Your task to perform on an android device: Search for a new mascara on Sephora Image 0: 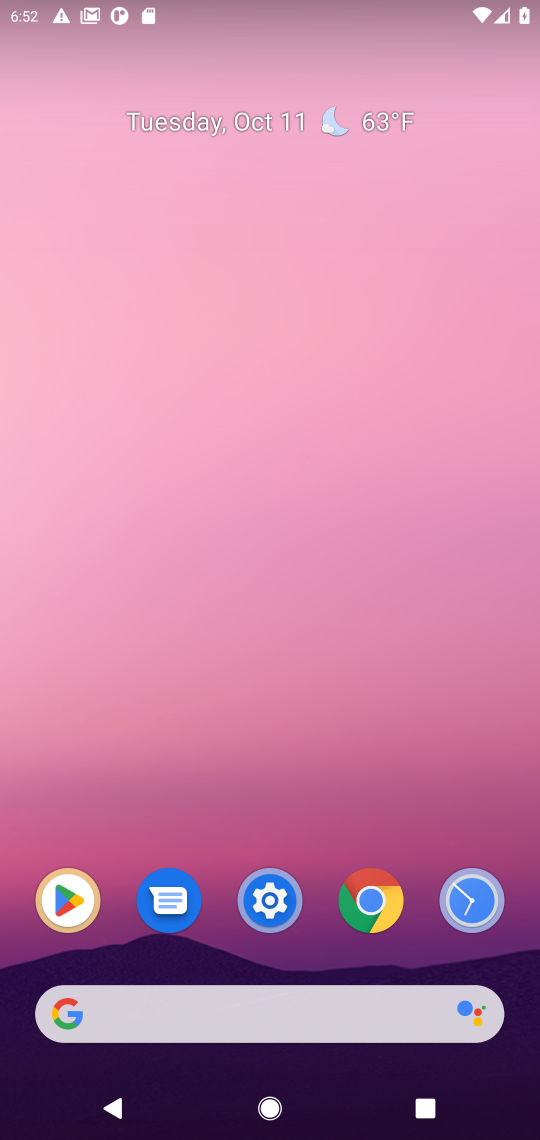
Step 0: click (370, 895)
Your task to perform on an android device: Search for a new mascara on Sephora Image 1: 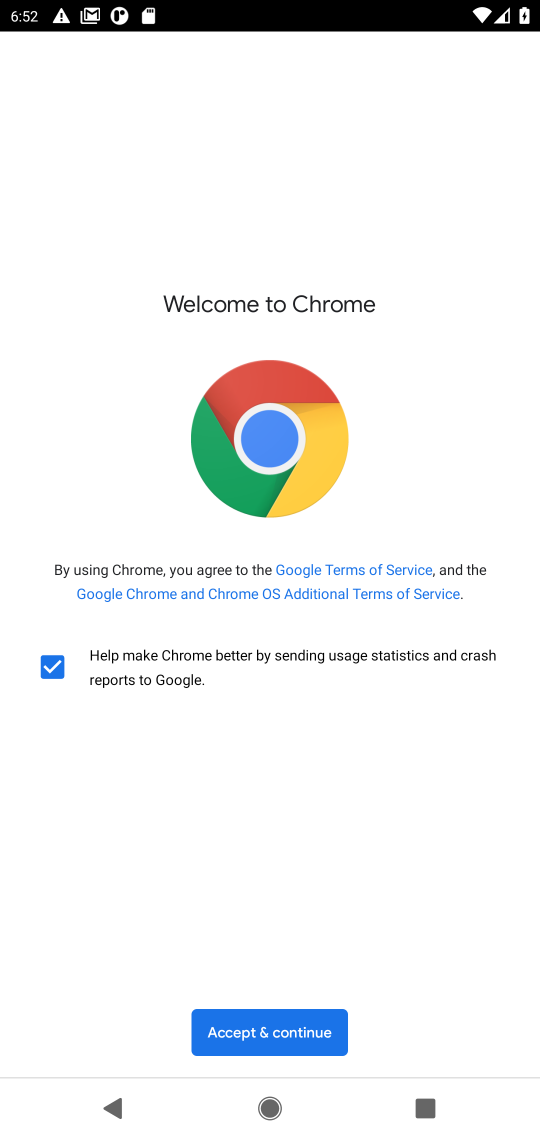
Step 1: click (274, 1032)
Your task to perform on an android device: Search for a new mascara on Sephora Image 2: 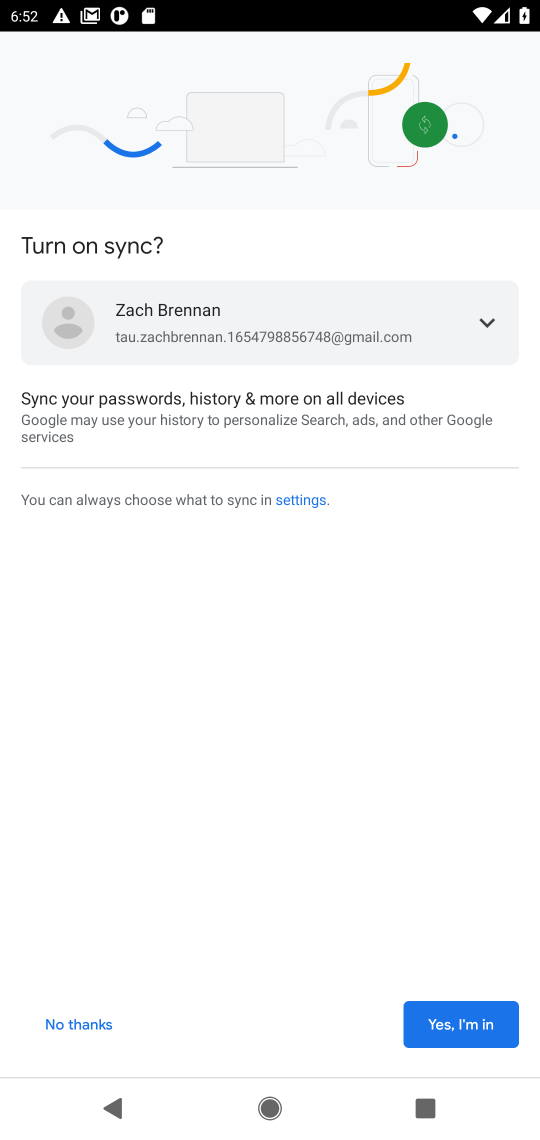
Step 2: click (465, 1018)
Your task to perform on an android device: Search for a new mascara on Sephora Image 3: 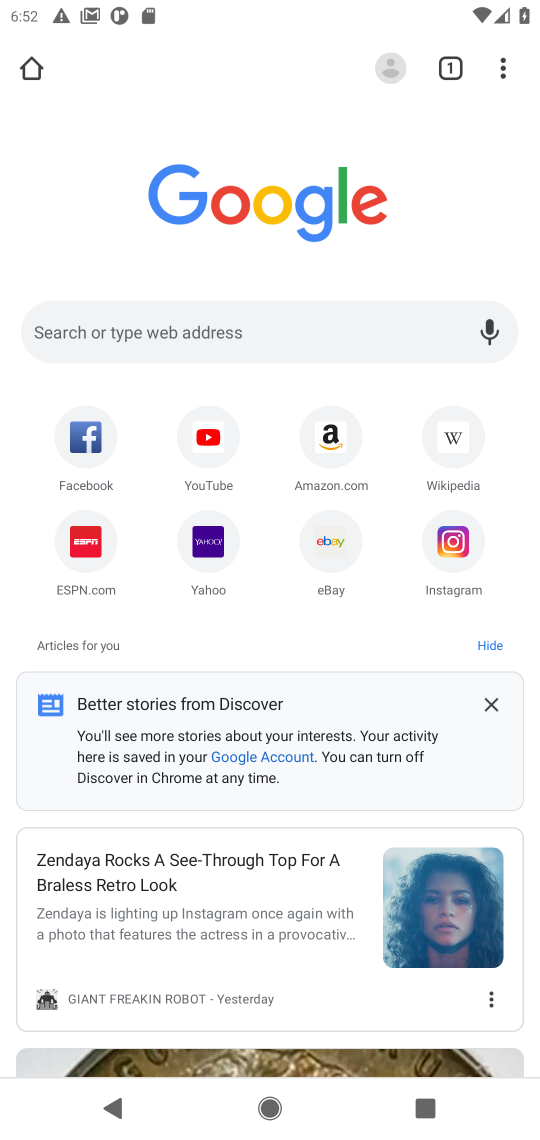
Step 3: click (262, 326)
Your task to perform on an android device: Search for a new mascara on Sephora Image 4: 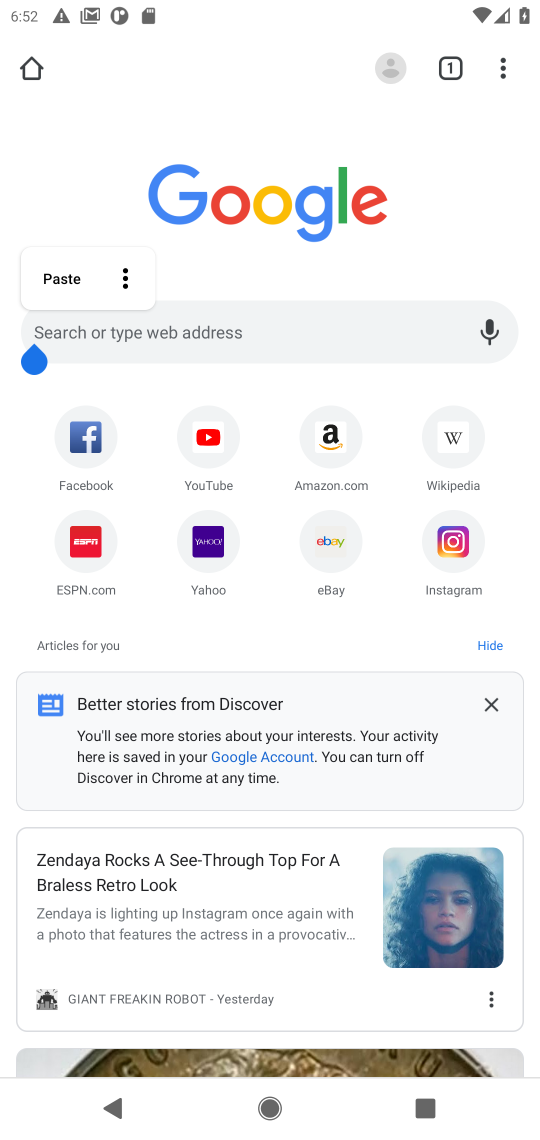
Step 4: click (222, 327)
Your task to perform on an android device: Search for a new mascara on Sephora Image 5: 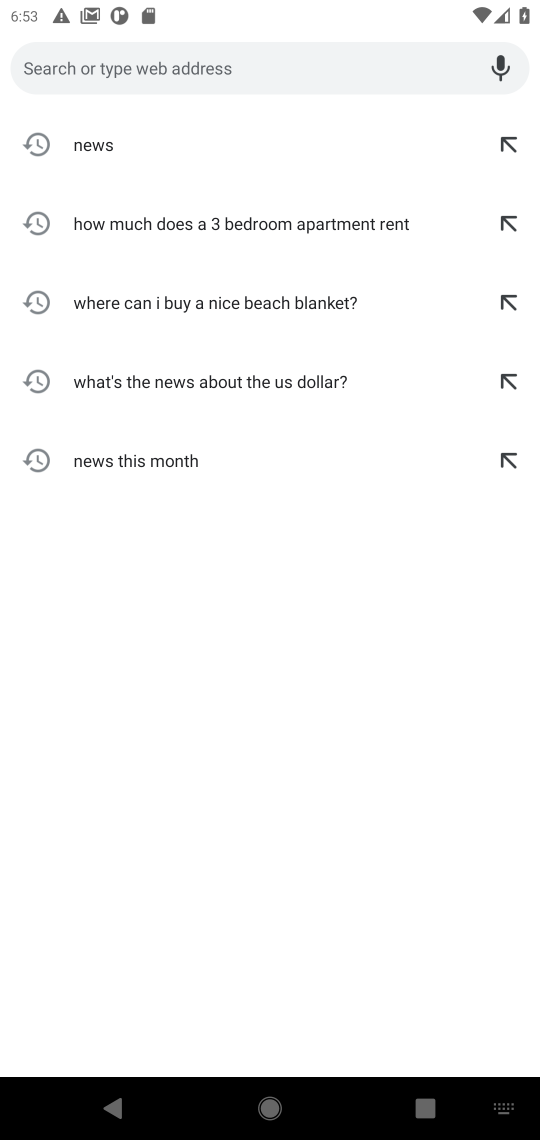
Step 5: type "new mascara on Sephora"
Your task to perform on an android device: Search for a new mascara on Sephora Image 6: 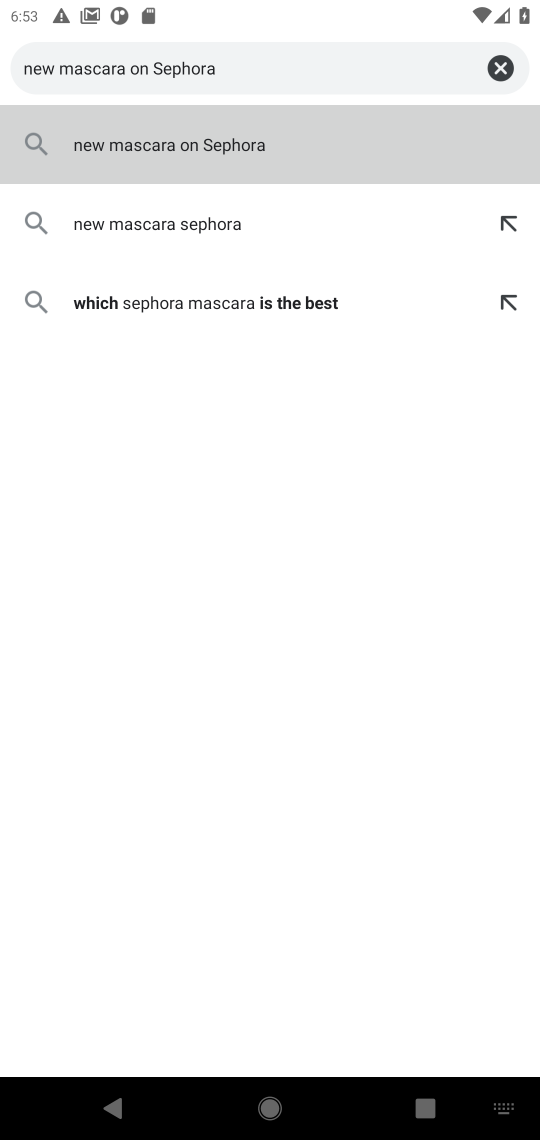
Step 6: press enter
Your task to perform on an android device: Search for a new mascara on Sephora Image 7: 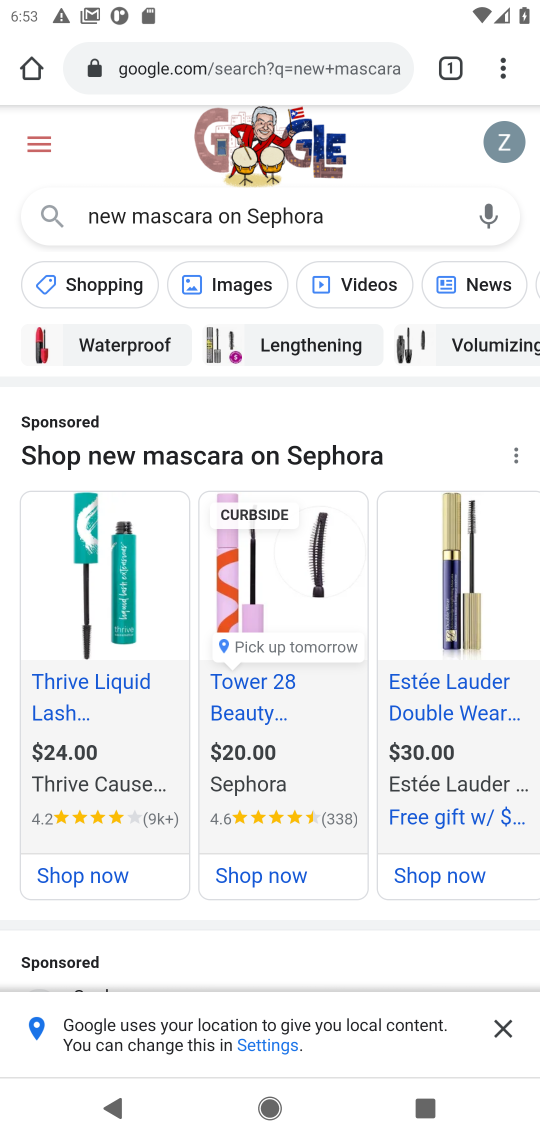
Step 7: drag from (268, 904) to (419, 309)
Your task to perform on an android device: Search for a new mascara on Sephora Image 8: 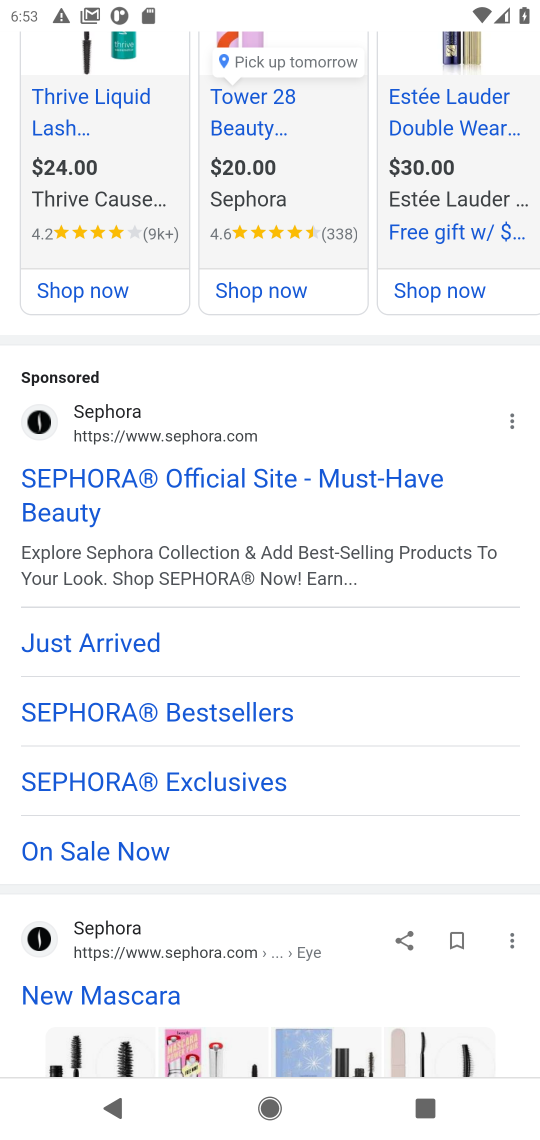
Step 8: drag from (323, 776) to (323, 676)
Your task to perform on an android device: Search for a new mascara on Sephora Image 9: 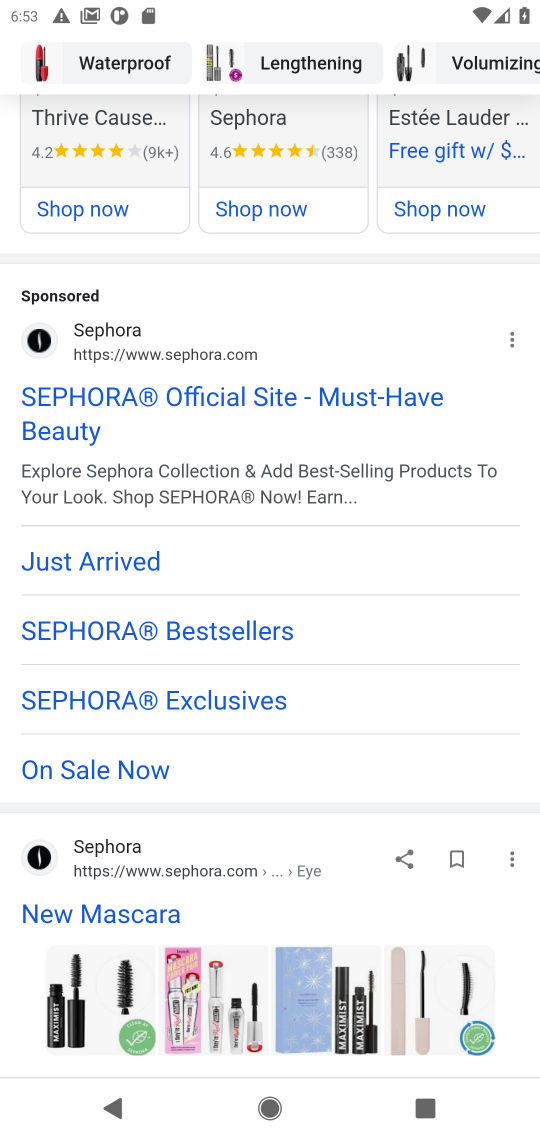
Step 9: drag from (236, 767) to (407, 325)
Your task to perform on an android device: Search for a new mascara on Sephora Image 10: 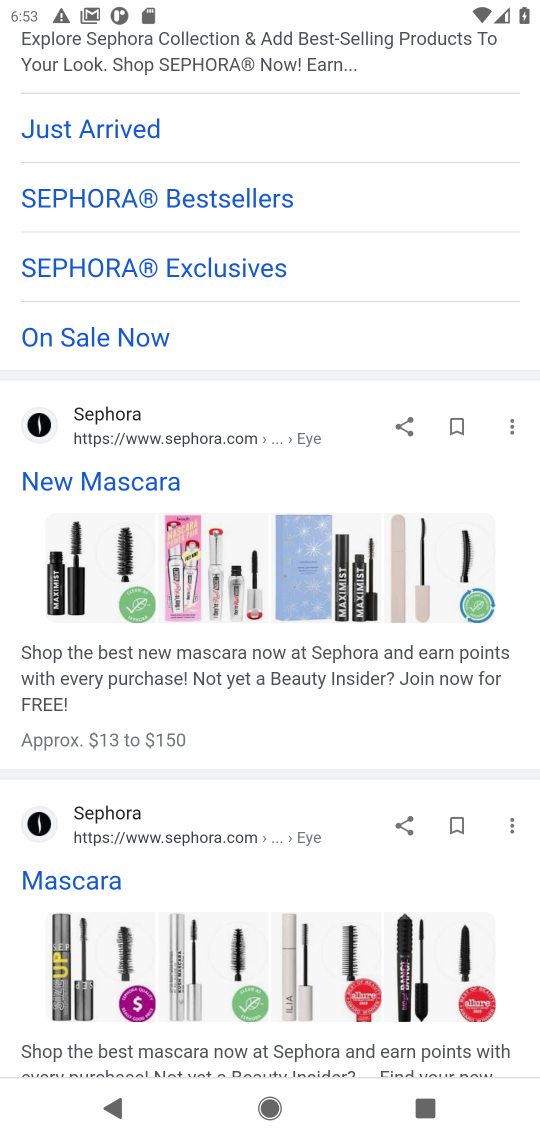
Step 10: click (99, 420)
Your task to perform on an android device: Search for a new mascara on Sephora Image 11: 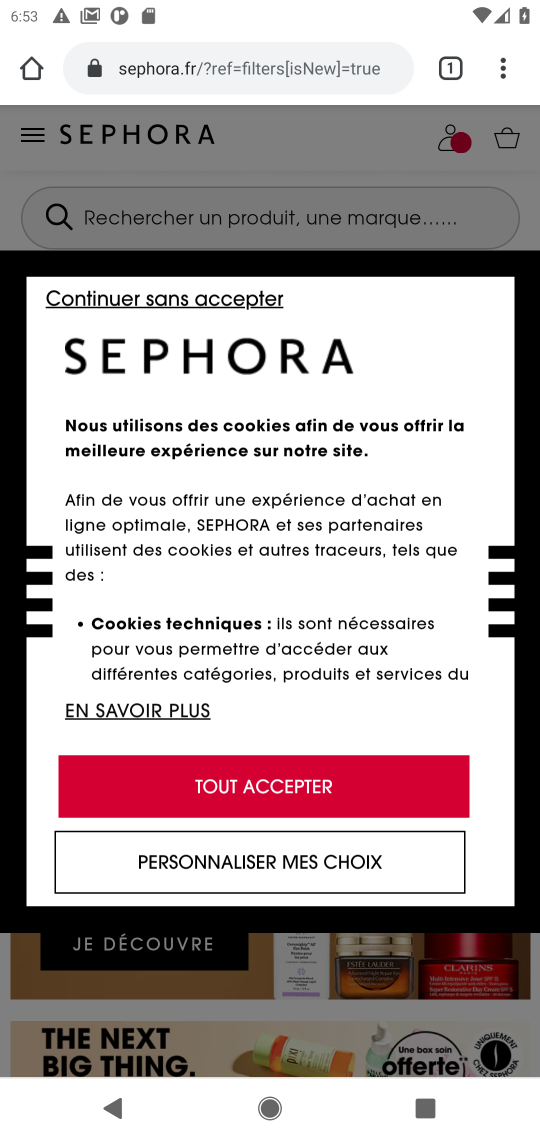
Step 11: click (313, 784)
Your task to perform on an android device: Search for a new mascara on Sephora Image 12: 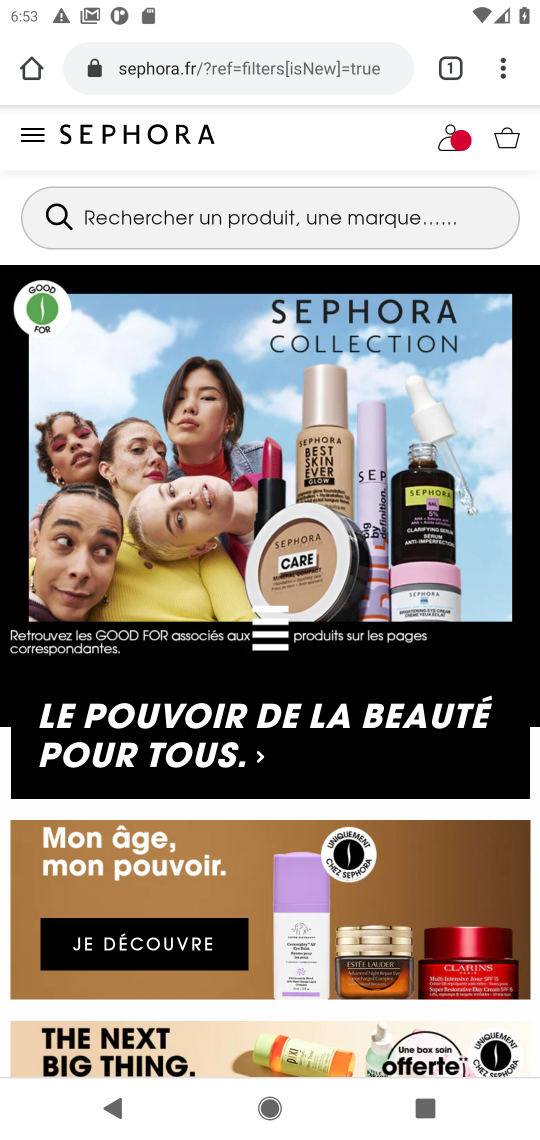
Step 12: drag from (235, 978) to (330, 305)
Your task to perform on an android device: Search for a new mascara on Sephora Image 13: 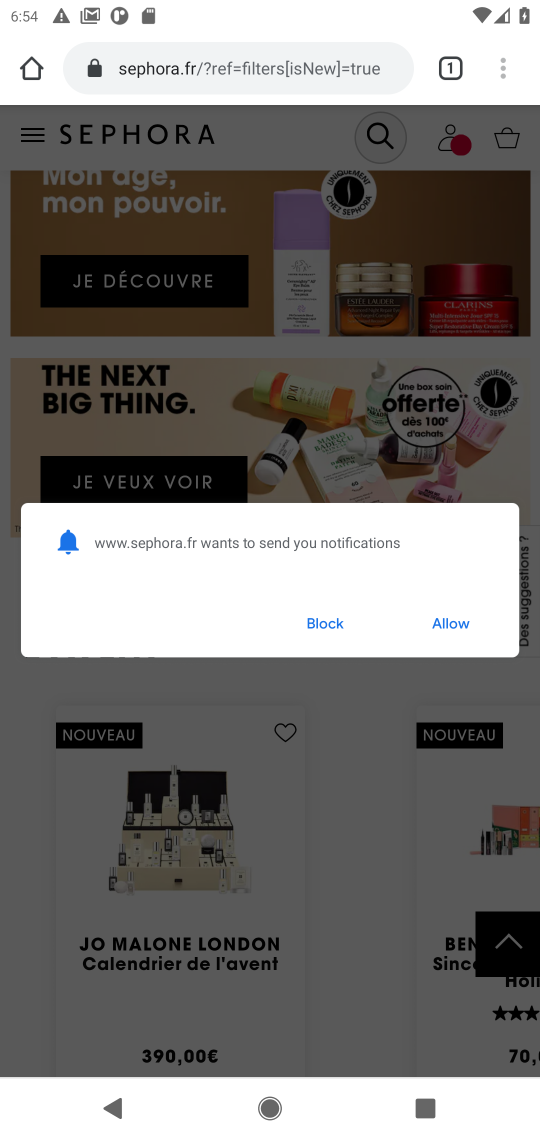
Step 13: click (318, 627)
Your task to perform on an android device: Search for a new mascara on Sephora Image 14: 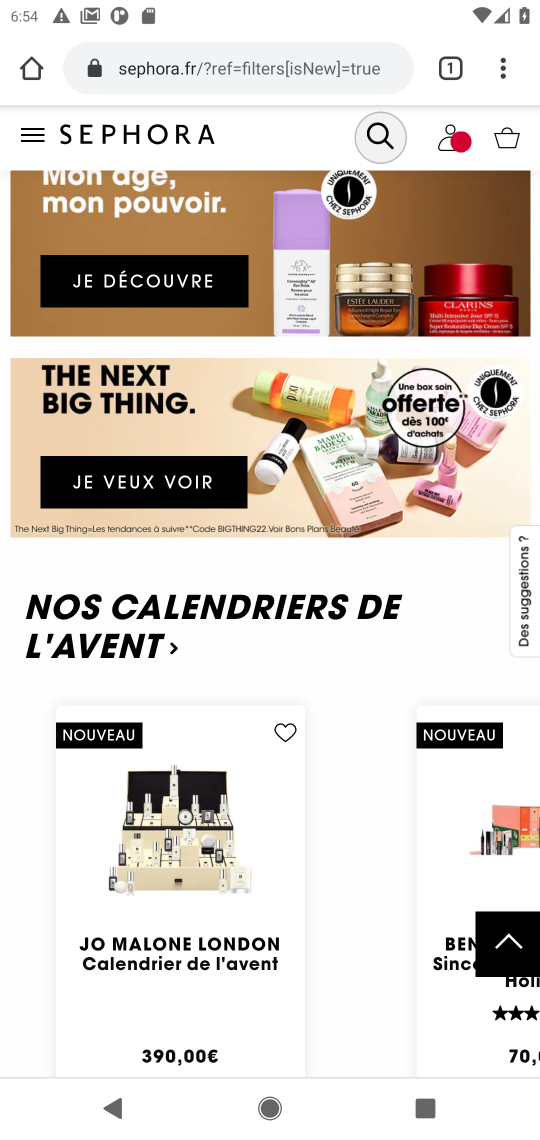
Step 14: drag from (295, 829) to (194, 904)
Your task to perform on an android device: Search for a new mascara on Sephora Image 15: 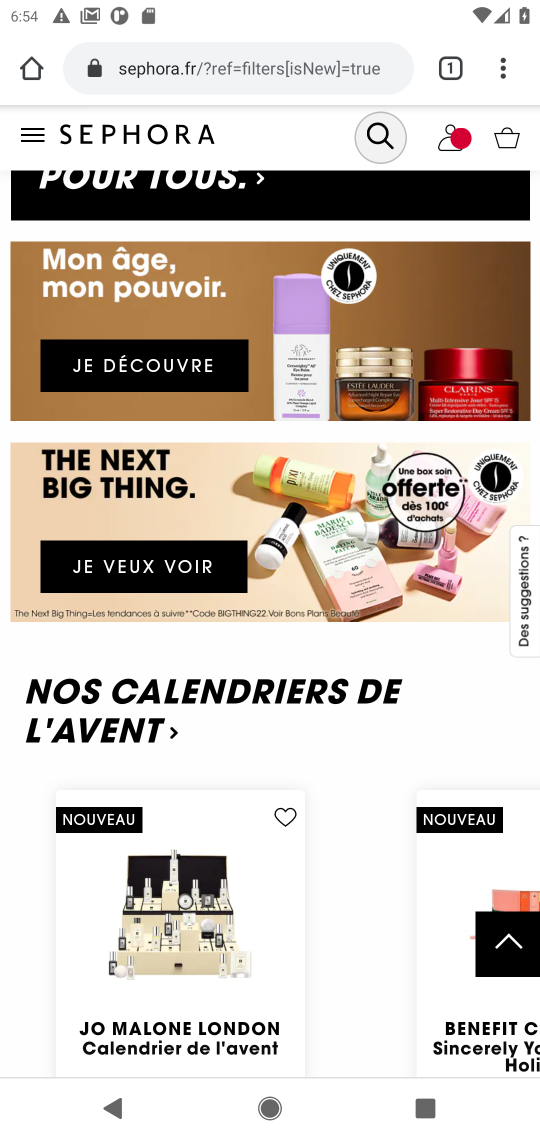
Step 15: drag from (278, 332) to (122, 772)
Your task to perform on an android device: Search for a new mascara on Sephora Image 16: 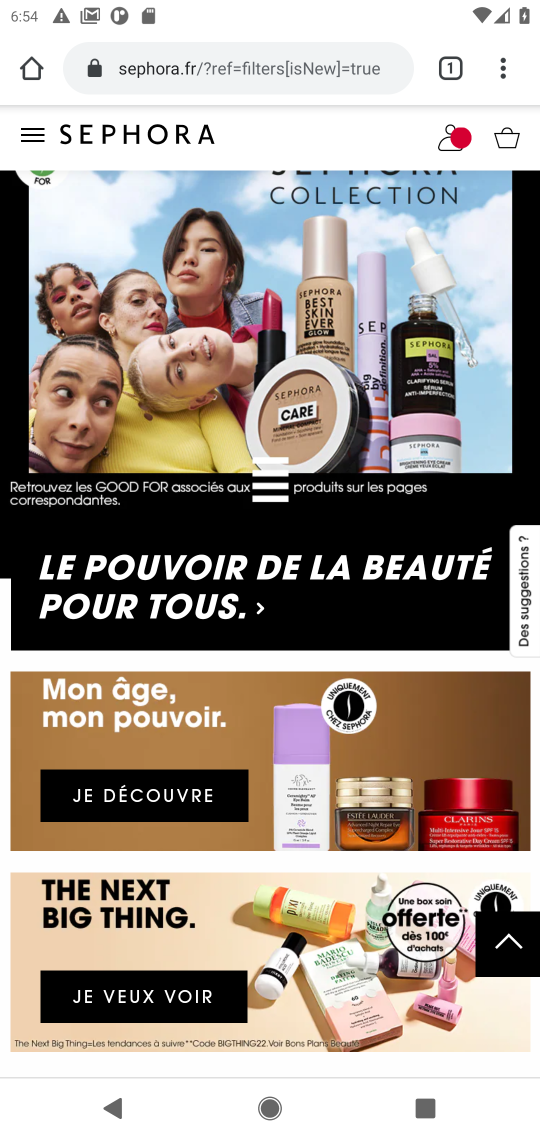
Step 16: drag from (302, 356) to (101, 843)
Your task to perform on an android device: Search for a new mascara on Sephora Image 17: 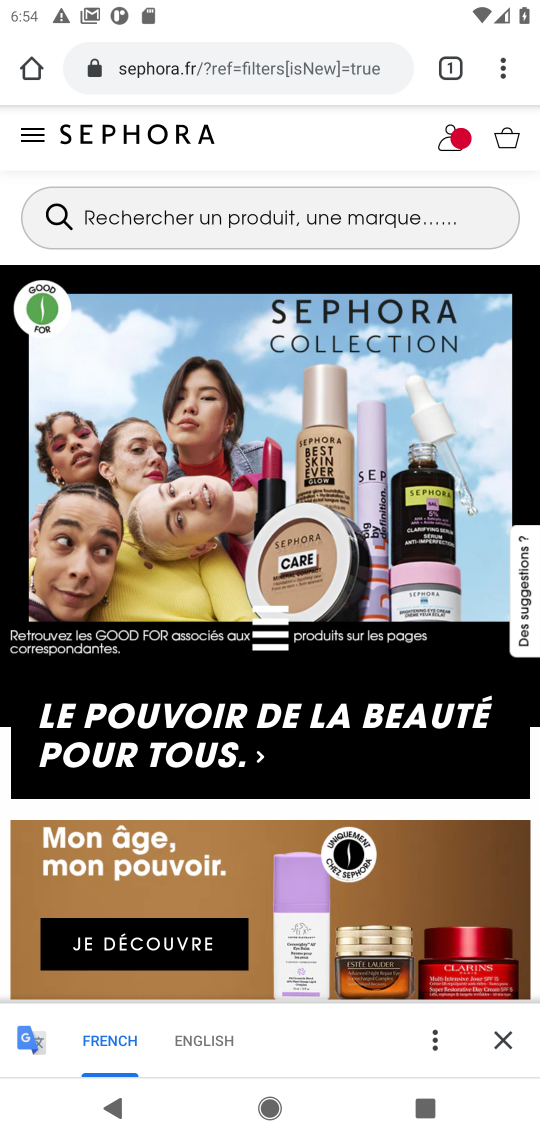
Step 17: click (178, 191)
Your task to perform on an android device: Search for a new mascara on Sephora Image 18: 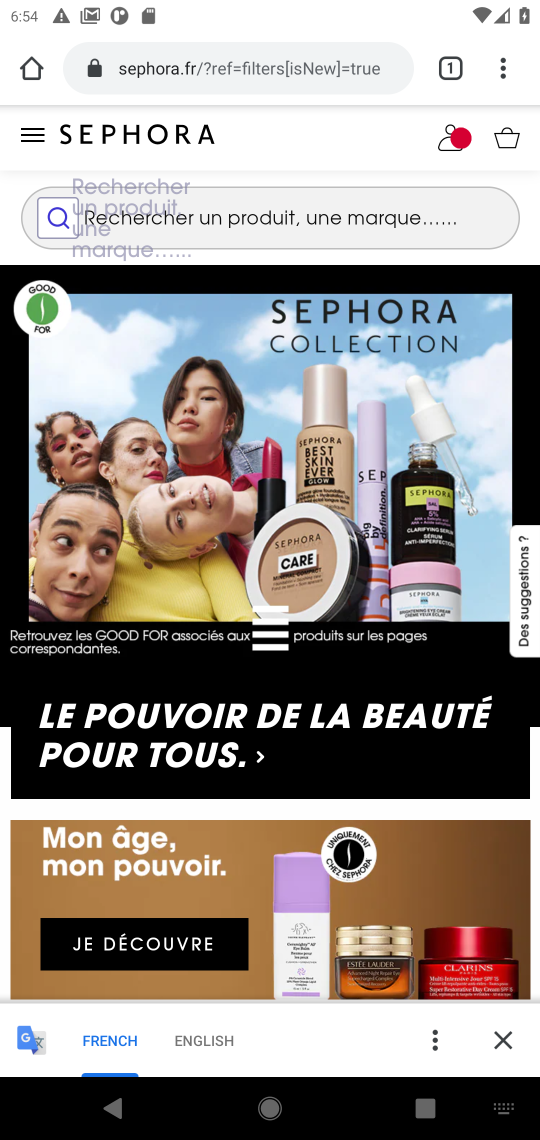
Step 18: click (173, 204)
Your task to perform on an android device: Search for a new mascara on Sephora Image 19: 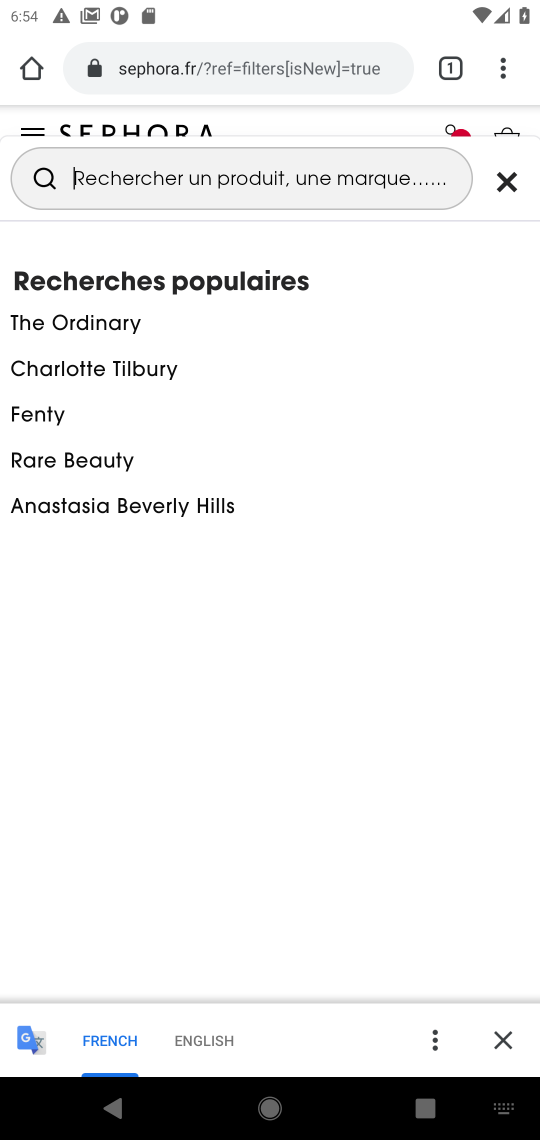
Step 19: type "new mascara"
Your task to perform on an android device: Search for a new mascara on Sephora Image 20: 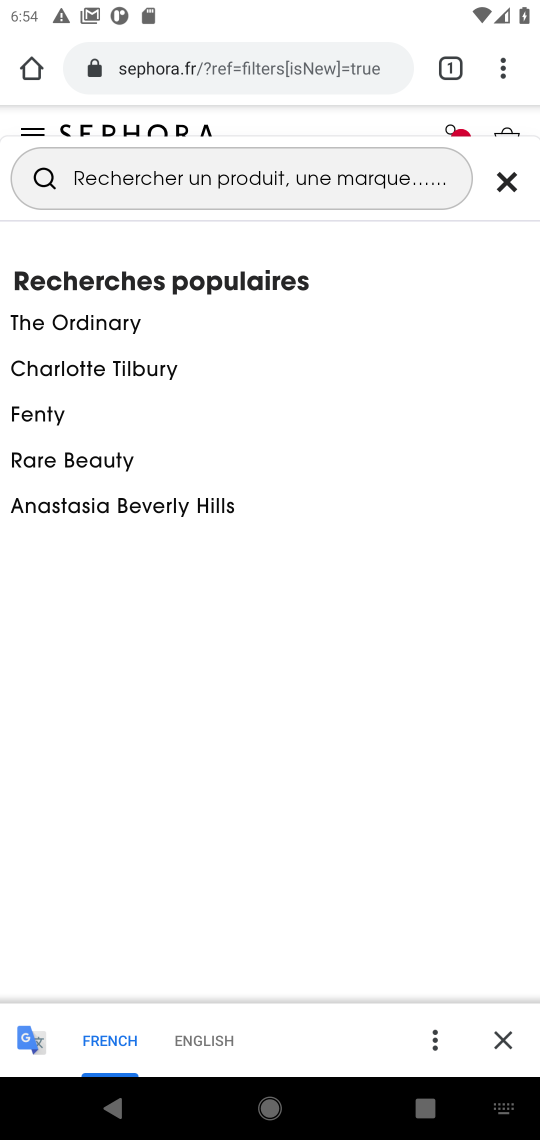
Step 20: press enter
Your task to perform on an android device: Search for a new mascara on Sephora Image 21: 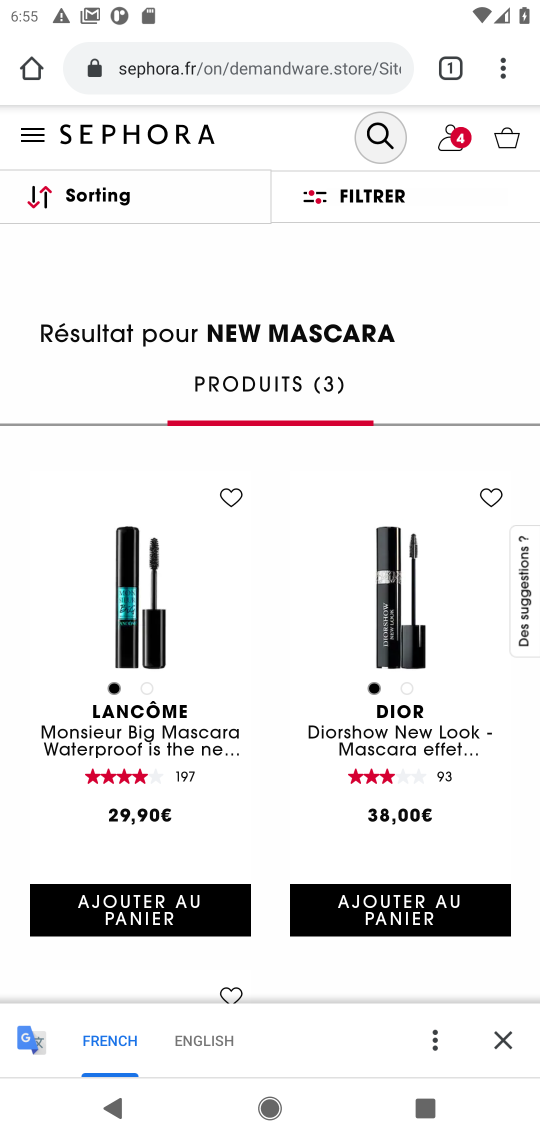
Step 21: task complete